Your task to perform on an android device: turn off wifi Image 0: 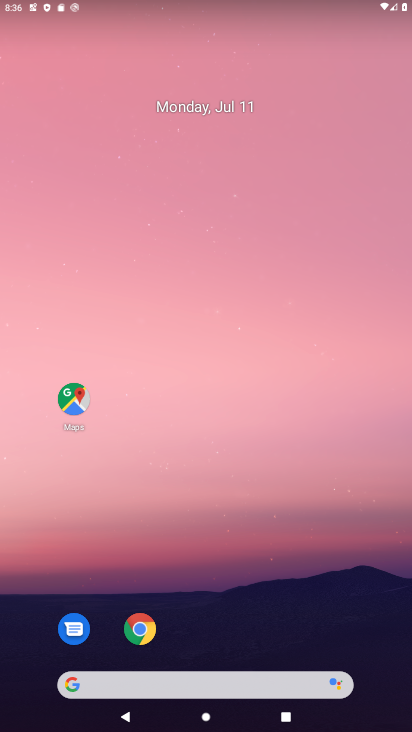
Step 0: drag from (207, 3) to (262, 623)
Your task to perform on an android device: turn off wifi Image 1: 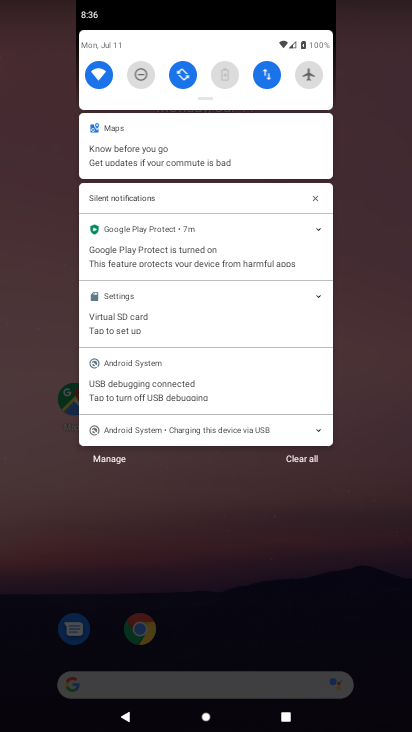
Step 1: click (95, 69)
Your task to perform on an android device: turn off wifi Image 2: 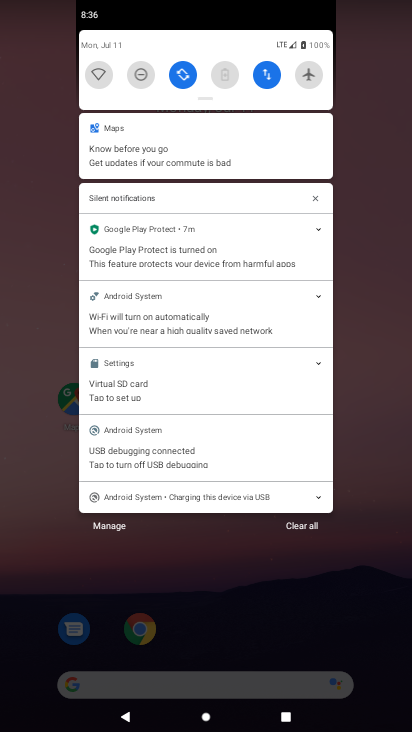
Step 2: task complete